Your task to perform on an android device: change the clock display to analog Image 0: 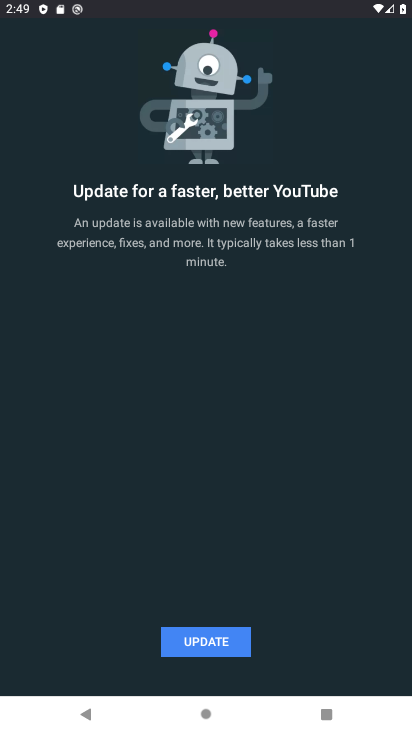
Step 0: press back button
Your task to perform on an android device: change the clock display to analog Image 1: 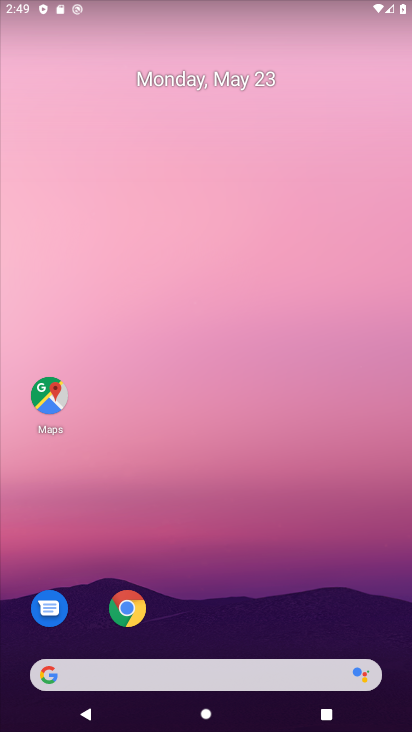
Step 1: drag from (271, 574) to (269, 215)
Your task to perform on an android device: change the clock display to analog Image 2: 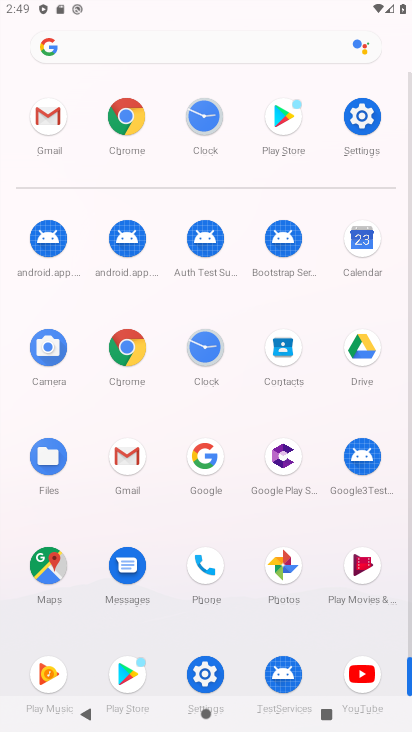
Step 2: click (203, 346)
Your task to perform on an android device: change the clock display to analog Image 3: 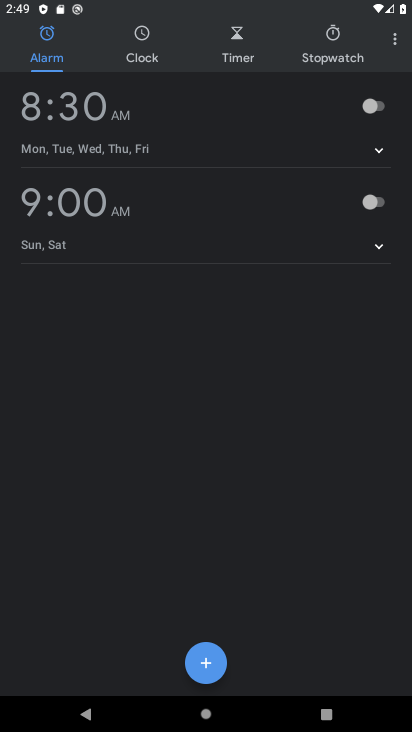
Step 3: click (390, 45)
Your task to perform on an android device: change the clock display to analog Image 4: 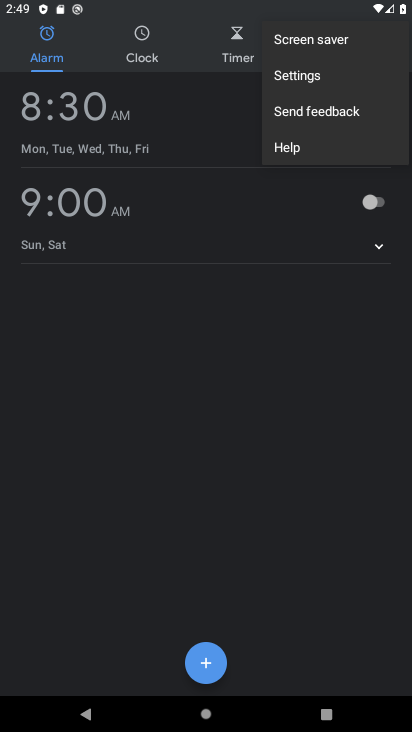
Step 4: click (345, 72)
Your task to perform on an android device: change the clock display to analog Image 5: 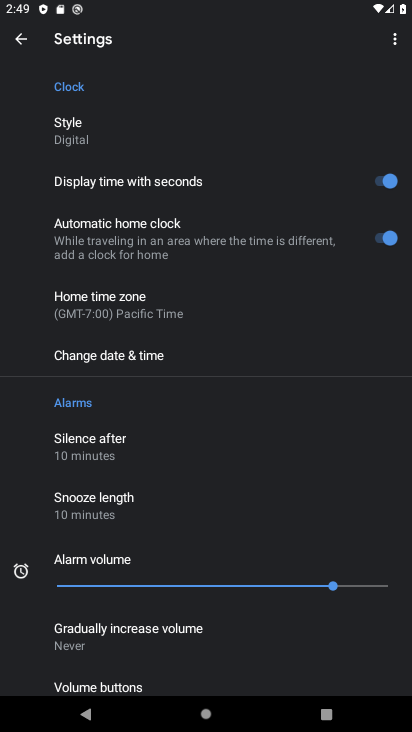
Step 5: click (114, 130)
Your task to perform on an android device: change the clock display to analog Image 6: 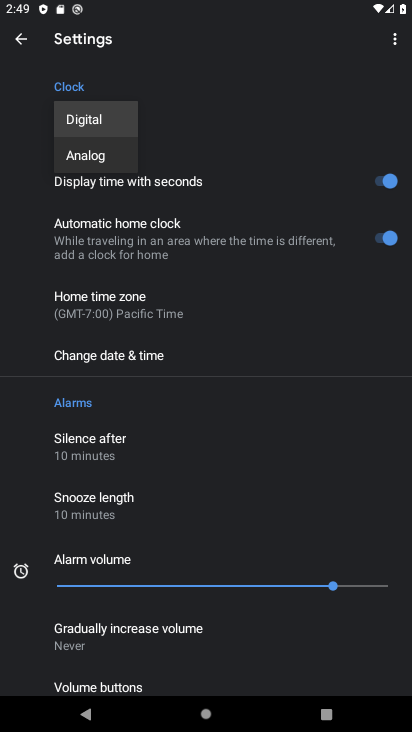
Step 6: click (101, 149)
Your task to perform on an android device: change the clock display to analog Image 7: 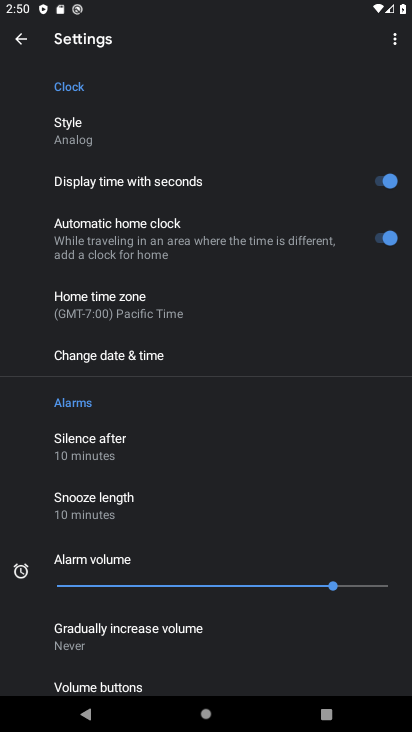
Step 7: task complete